Your task to perform on an android device: Open the stopwatch Image 0: 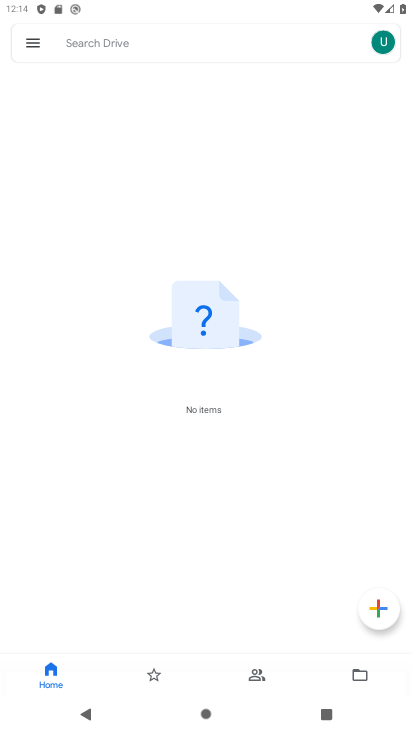
Step 0: press home button
Your task to perform on an android device: Open the stopwatch Image 1: 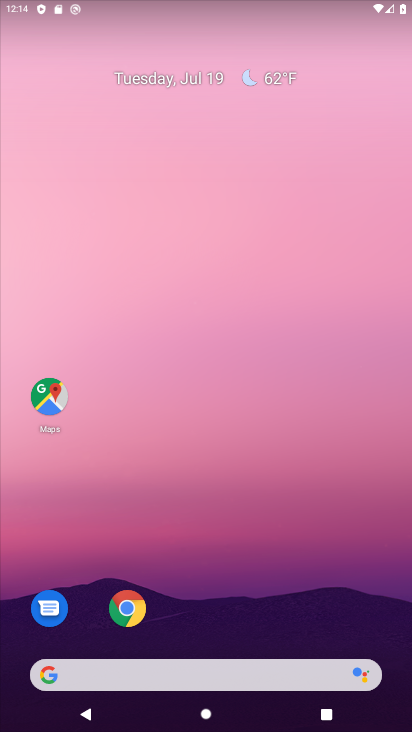
Step 1: drag from (221, 646) to (374, 81)
Your task to perform on an android device: Open the stopwatch Image 2: 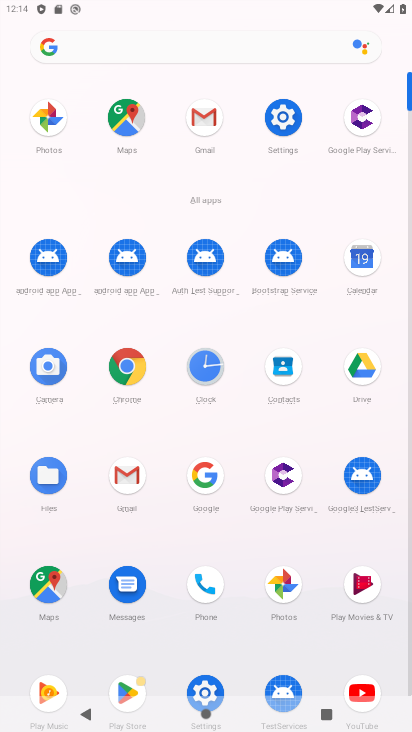
Step 2: click (205, 361)
Your task to perform on an android device: Open the stopwatch Image 3: 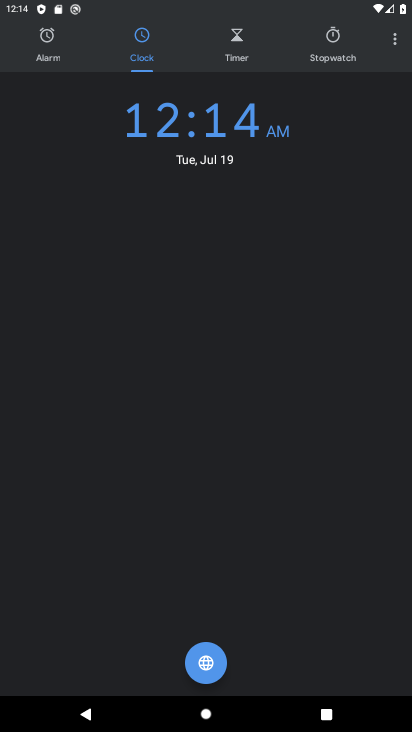
Step 3: click (330, 30)
Your task to perform on an android device: Open the stopwatch Image 4: 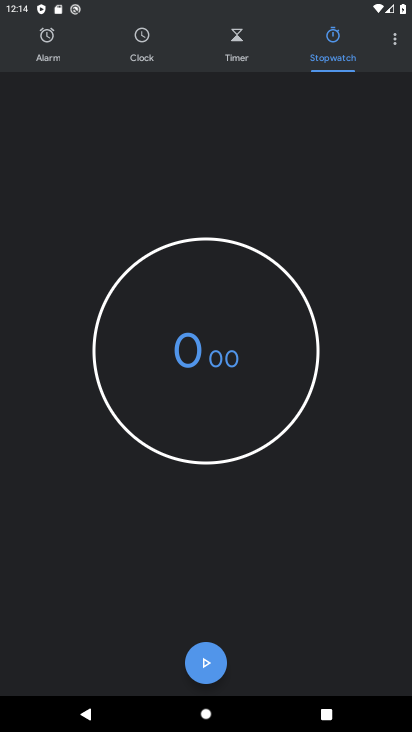
Step 4: click (205, 656)
Your task to perform on an android device: Open the stopwatch Image 5: 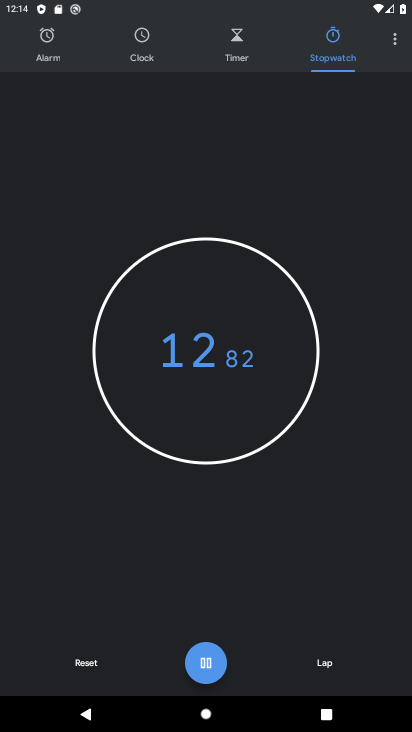
Step 5: task complete